Your task to perform on an android device: install app "Pluto TV - Live TV and Movies" Image 0: 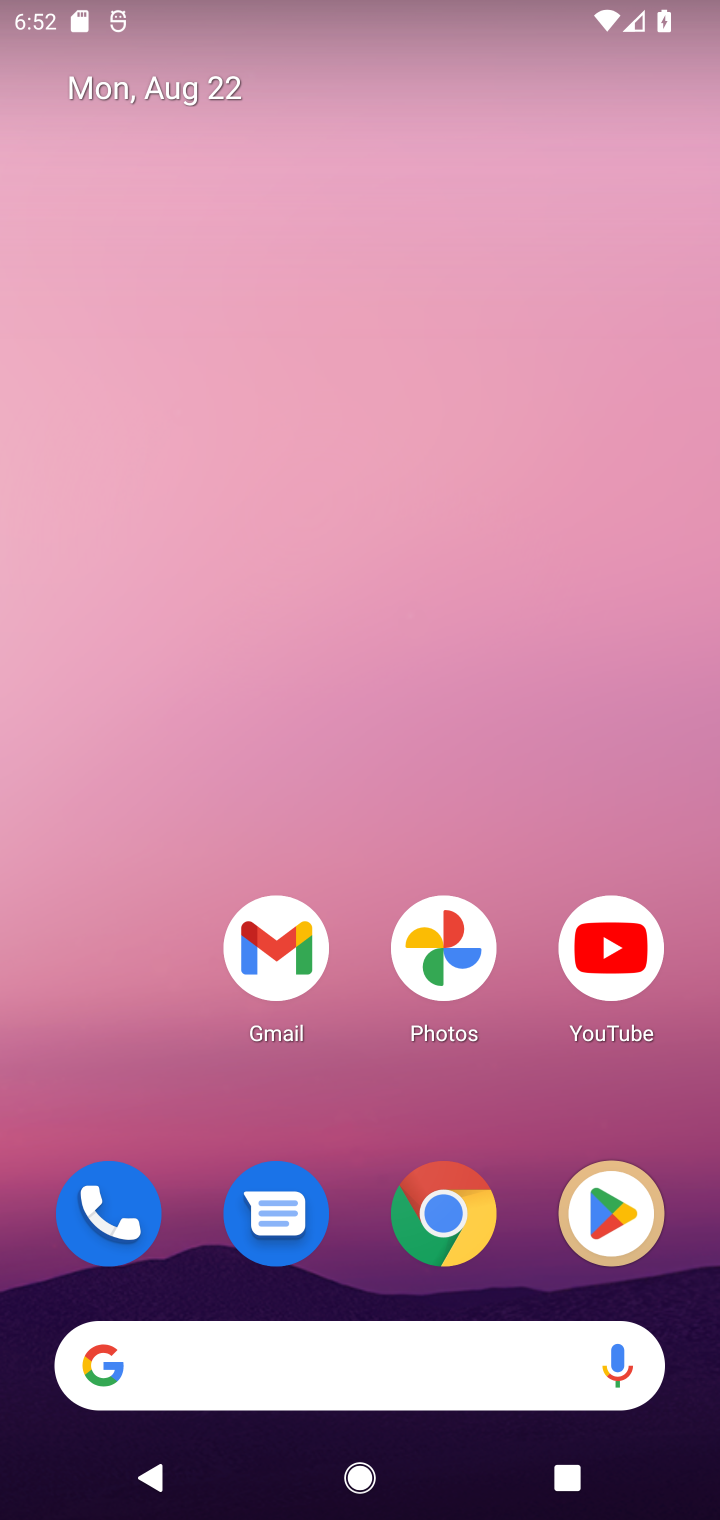
Step 0: click (580, 1221)
Your task to perform on an android device: install app "Pluto TV - Live TV and Movies" Image 1: 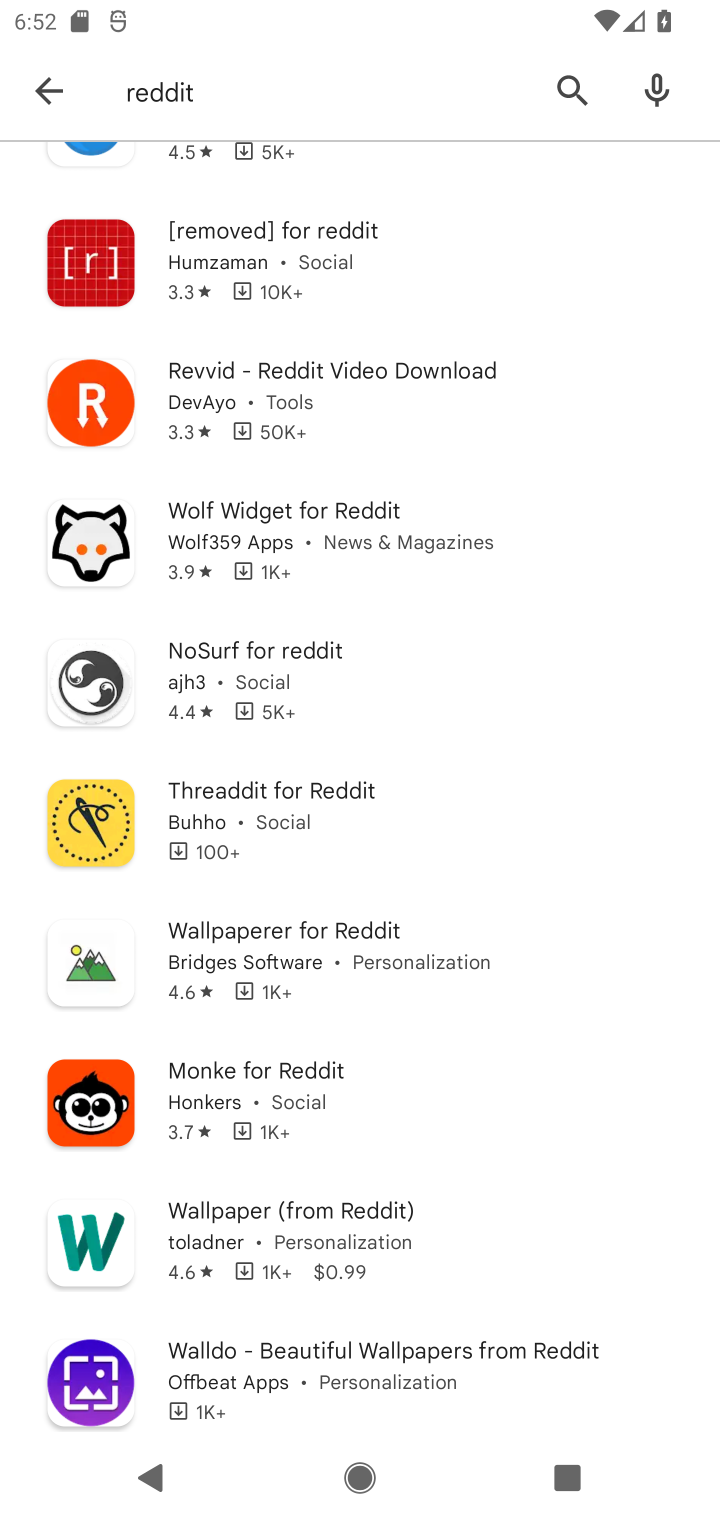
Step 1: click (577, 90)
Your task to perform on an android device: install app "Pluto TV - Live TV and Movies" Image 2: 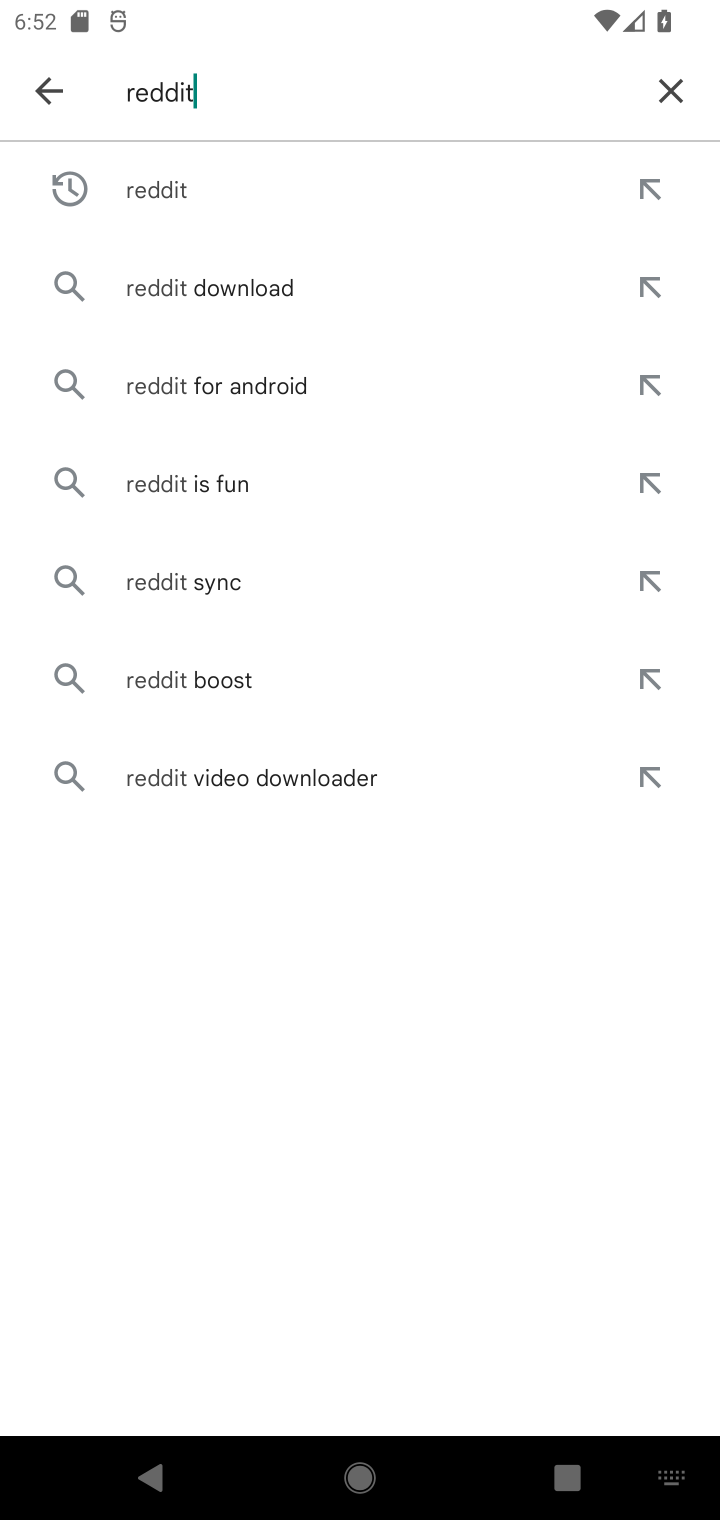
Step 2: click (671, 90)
Your task to perform on an android device: install app "Pluto TV - Live TV and Movies" Image 3: 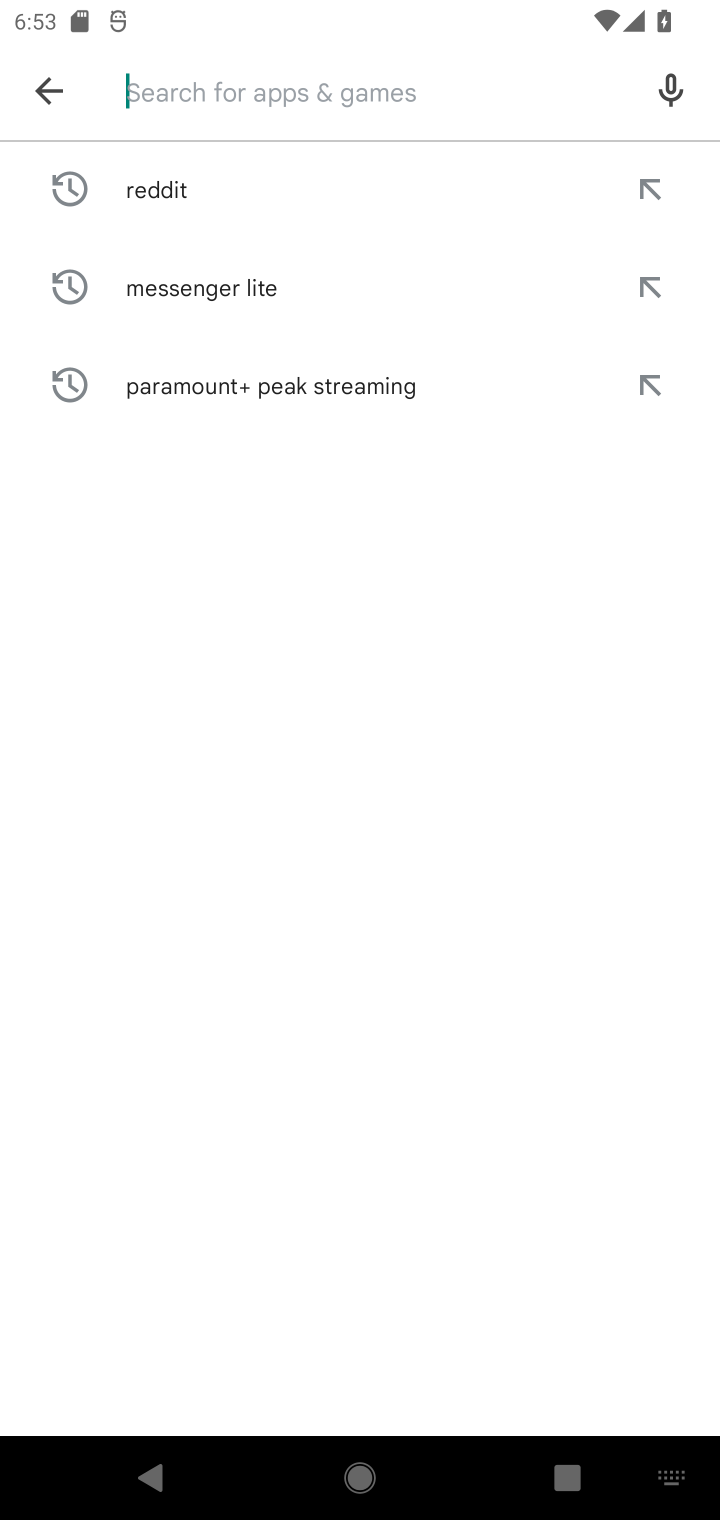
Step 3: type "Pluto TV - Live TV and Movies"
Your task to perform on an android device: install app "Pluto TV - Live TV and Movies" Image 4: 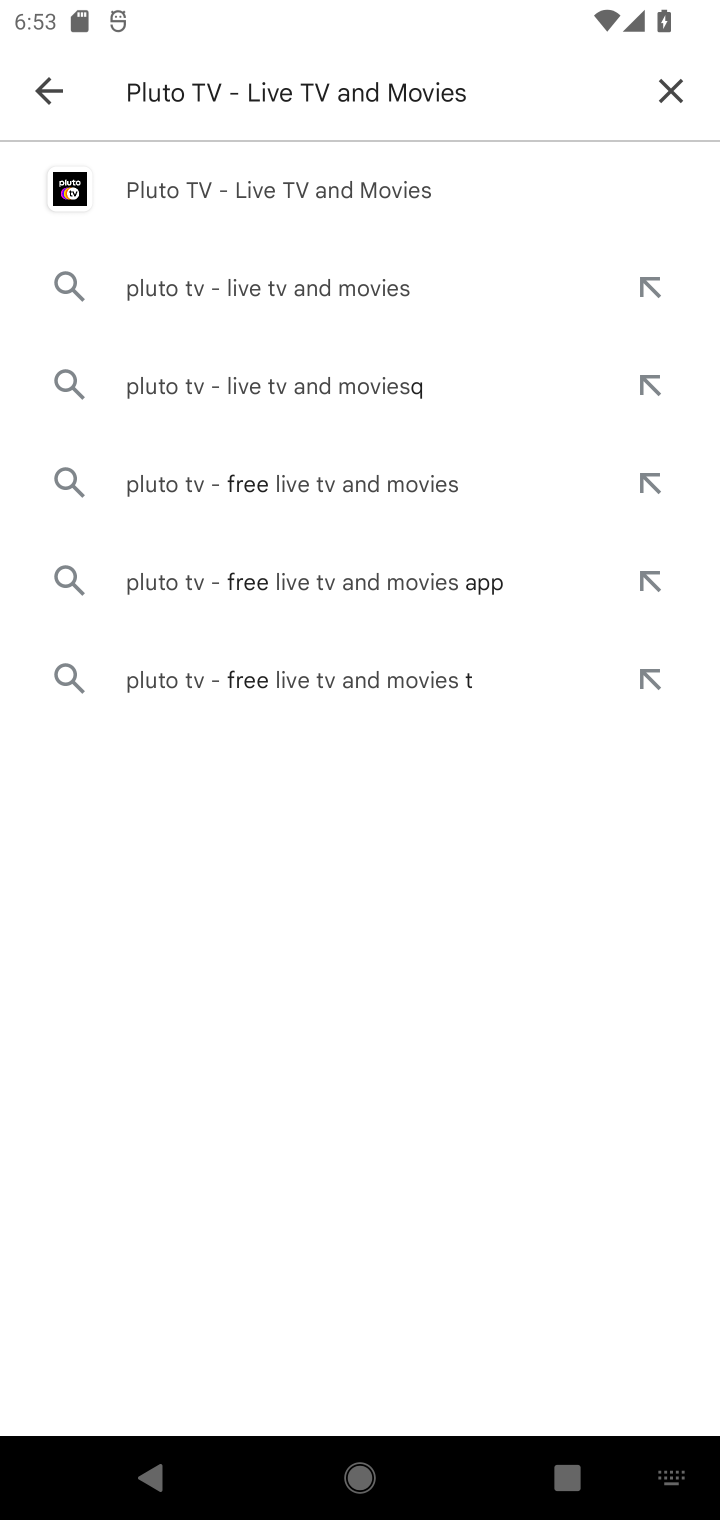
Step 4: click (228, 201)
Your task to perform on an android device: install app "Pluto TV - Live TV and Movies" Image 5: 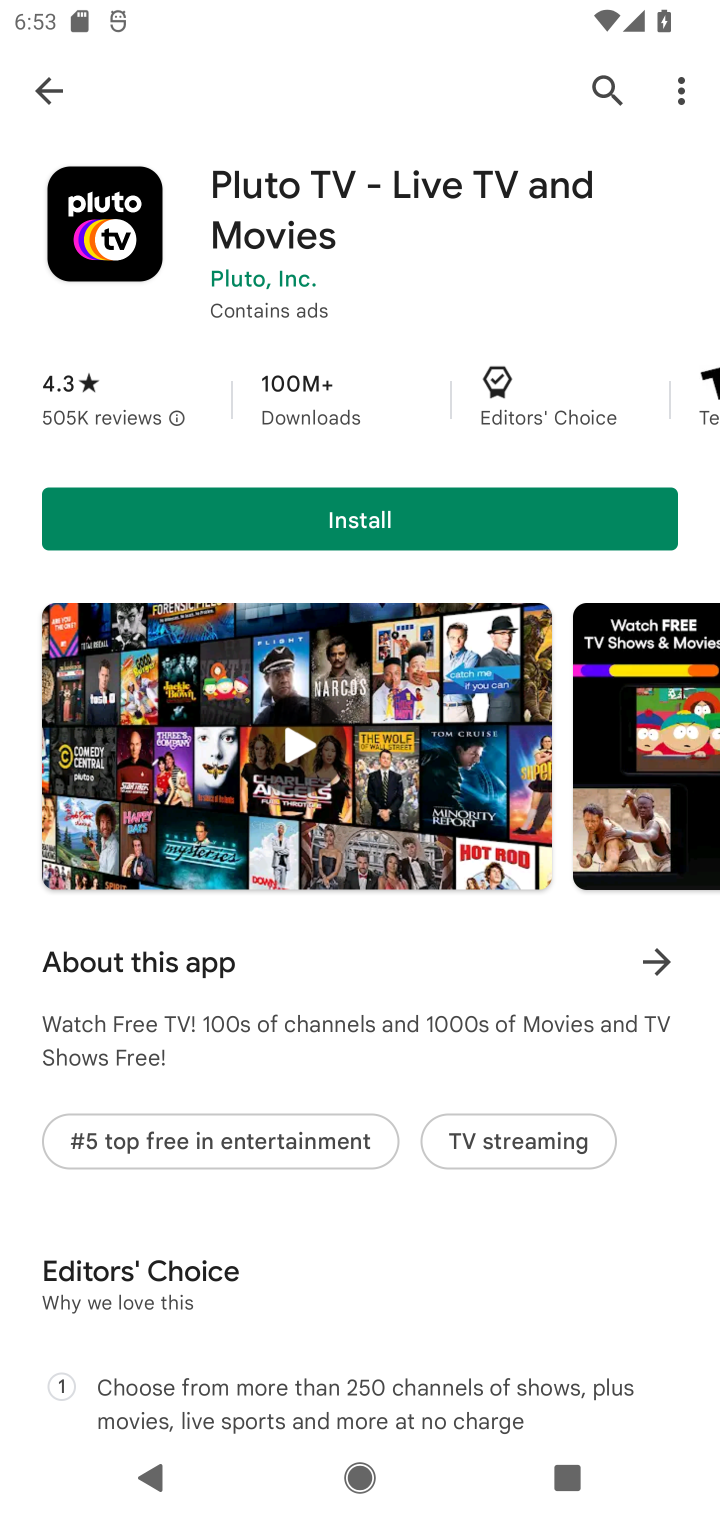
Step 5: click (370, 538)
Your task to perform on an android device: install app "Pluto TV - Live TV and Movies" Image 6: 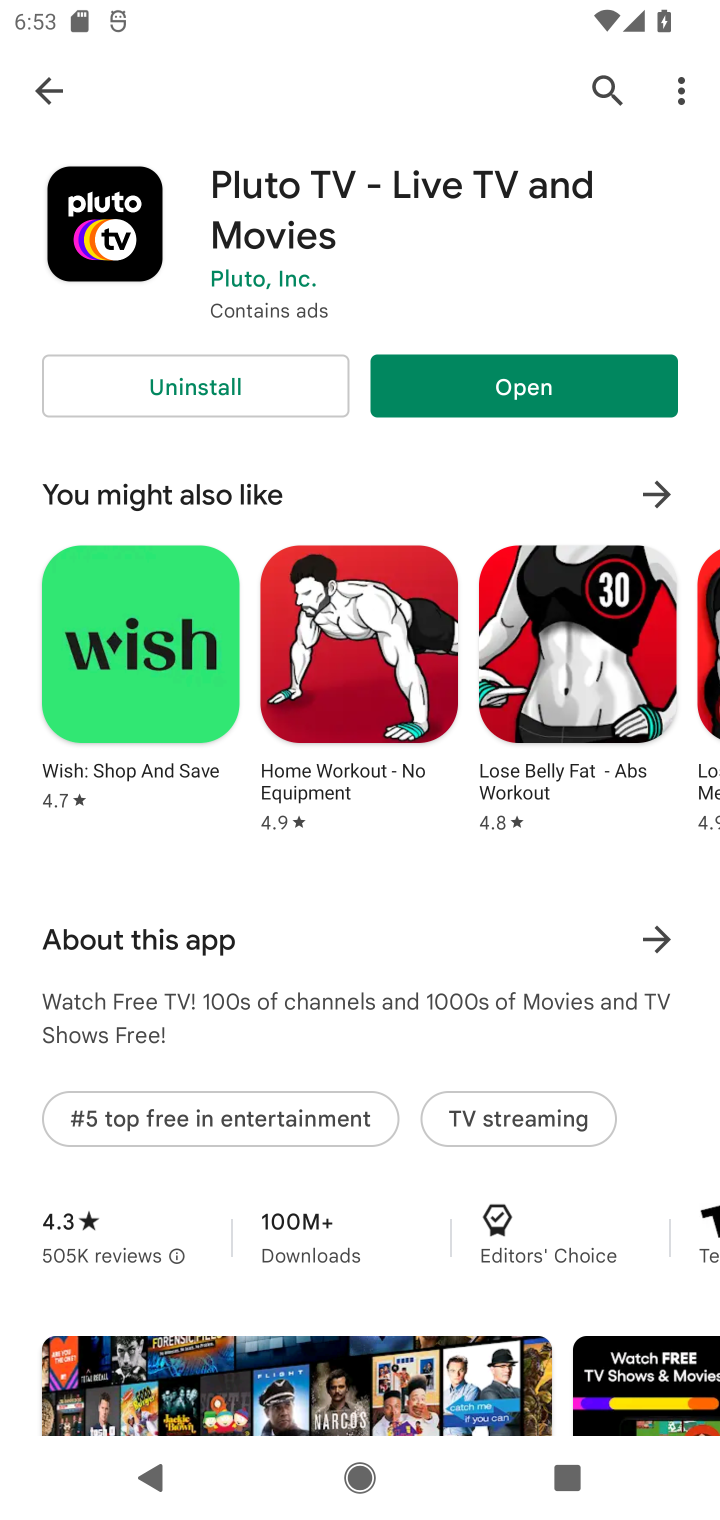
Step 6: click (543, 397)
Your task to perform on an android device: install app "Pluto TV - Live TV and Movies" Image 7: 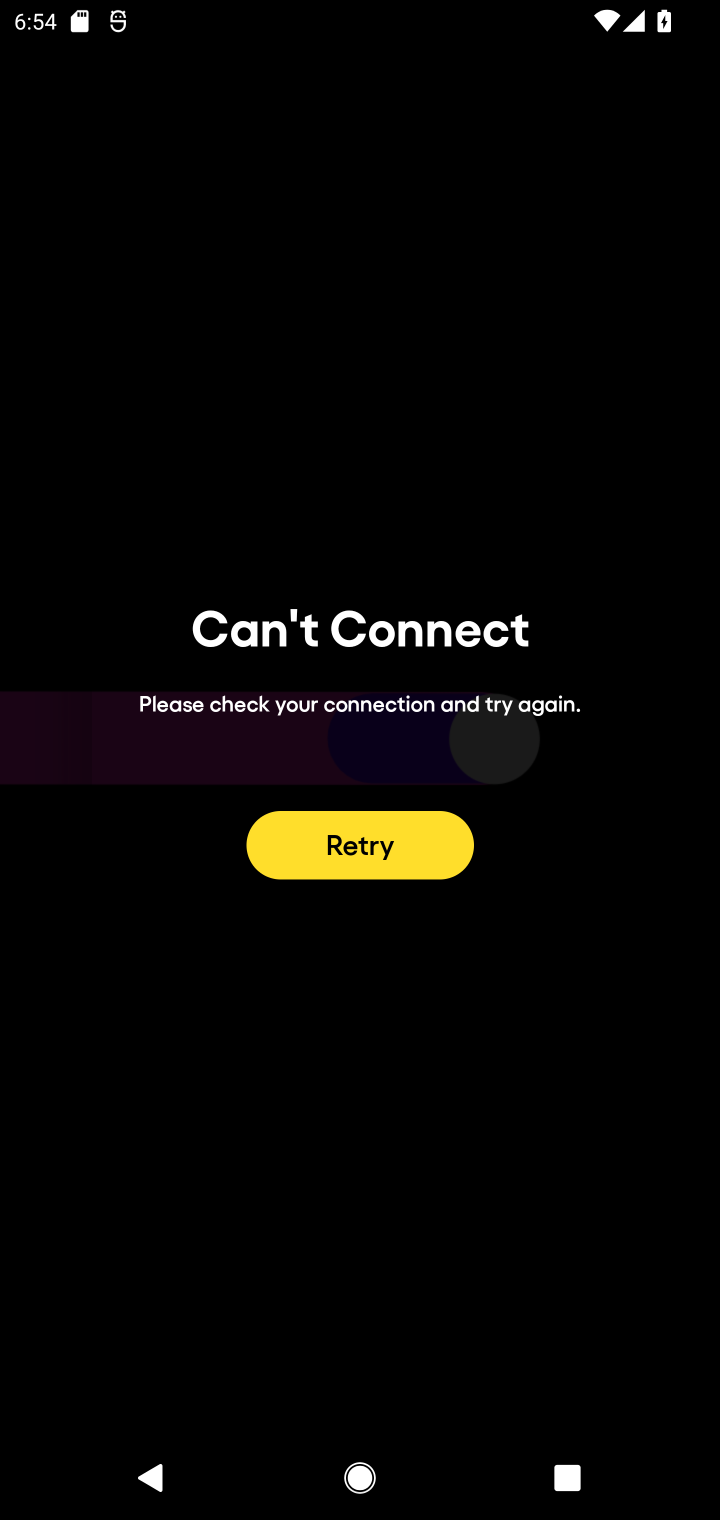
Step 7: task complete